Your task to perform on an android device: change your default location settings in chrome Image 0: 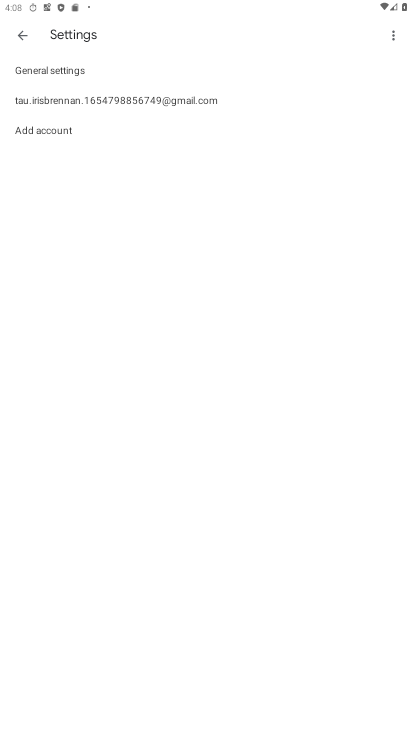
Step 0: press home button
Your task to perform on an android device: change your default location settings in chrome Image 1: 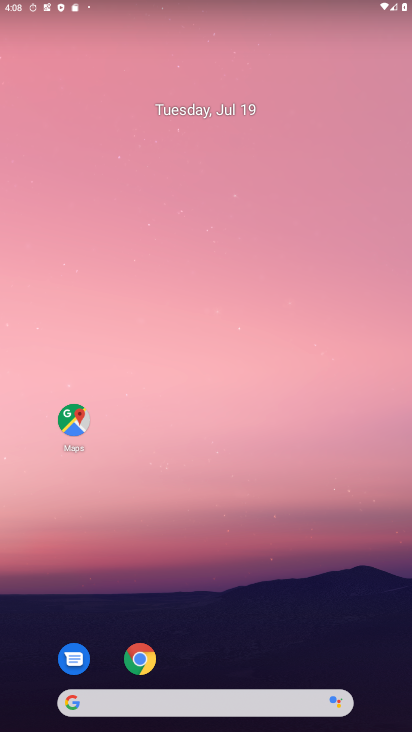
Step 1: drag from (261, 581) to (138, 1)
Your task to perform on an android device: change your default location settings in chrome Image 2: 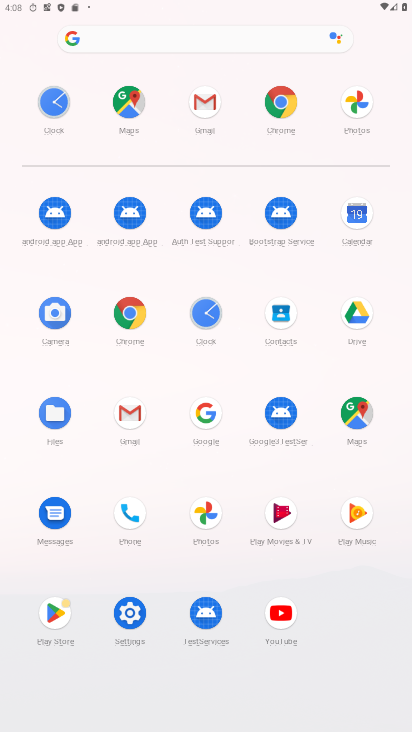
Step 2: click (278, 103)
Your task to perform on an android device: change your default location settings in chrome Image 3: 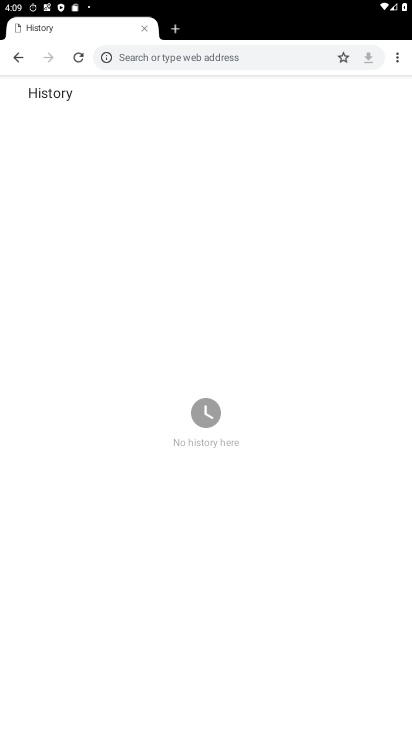
Step 3: click (16, 60)
Your task to perform on an android device: change your default location settings in chrome Image 4: 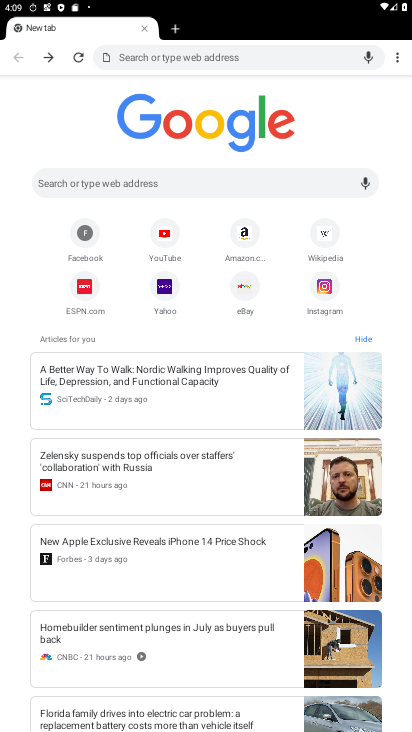
Step 4: click (393, 61)
Your task to perform on an android device: change your default location settings in chrome Image 5: 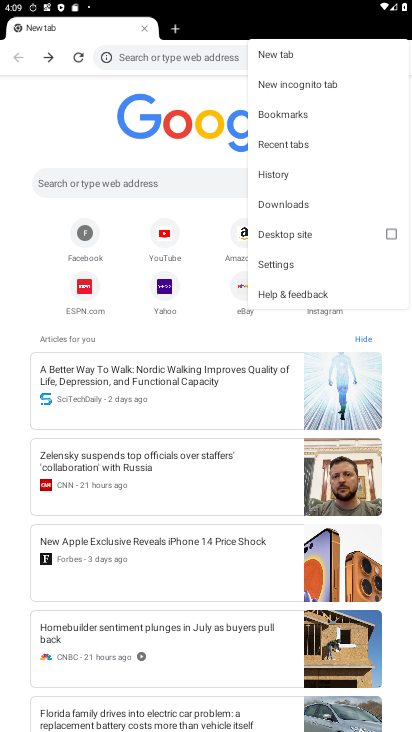
Step 5: click (293, 271)
Your task to perform on an android device: change your default location settings in chrome Image 6: 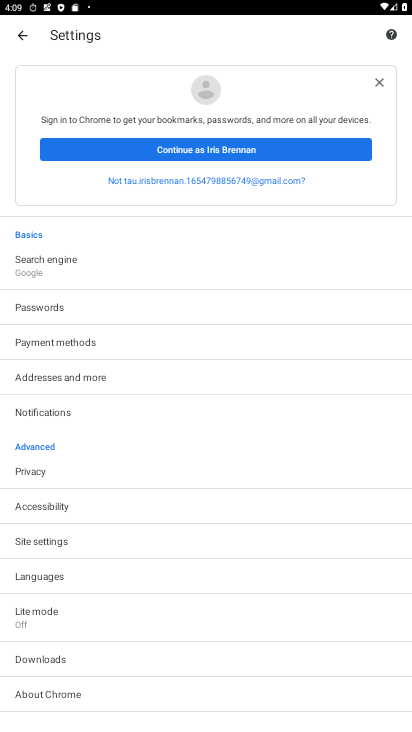
Step 6: drag from (156, 570) to (142, 245)
Your task to perform on an android device: change your default location settings in chrome Image 7: 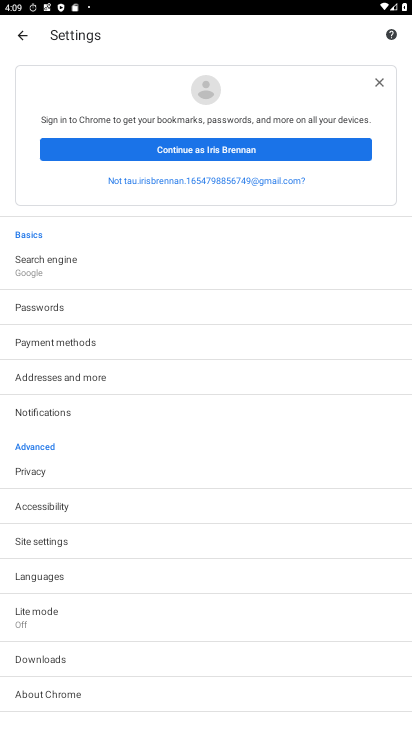
Step 7: click (28, 271)
Your task to perform on an android device: change your default location settings in chrome Image 8: 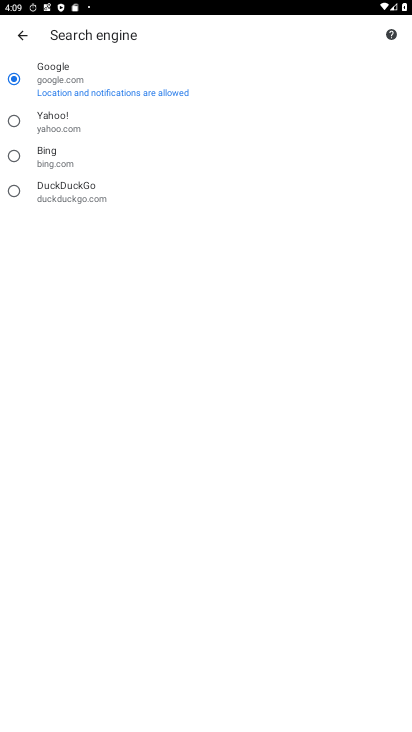
Step 8: task complete